Your task to perform on an android device: turn off priority inbox in the gmail app Image 0: 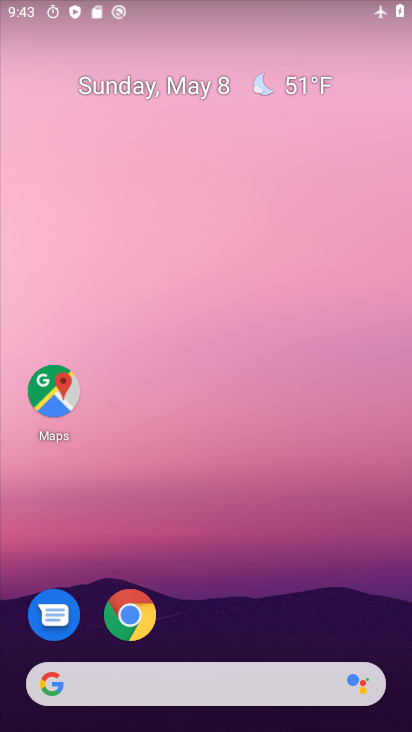
Step 0: drag from (234, 601) to (245, 185)
Your task to perform on an android device: turn off priority inbox in the gmail app Image 1: 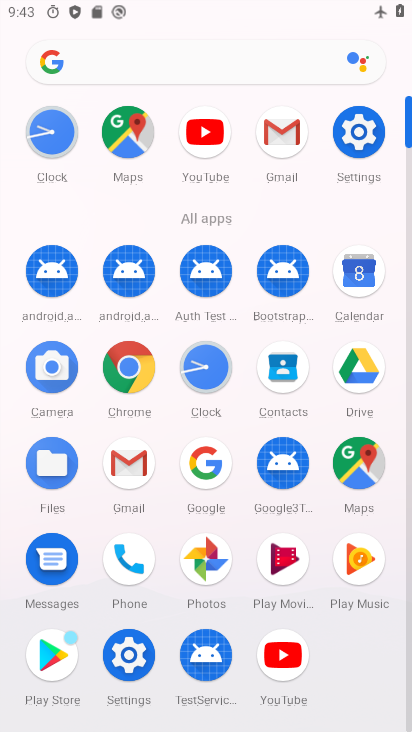
Step 1: click (147, 458)
Your task to perform on an android device: turn off priority inbox in the gmail app Image 2: 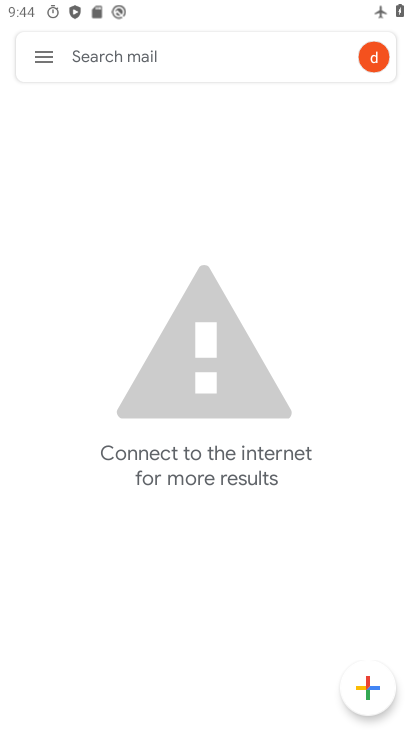
Step 2: click (31, 66)
Your task to perform on an android device: turn off priority inbox in the gmail app Image 3: 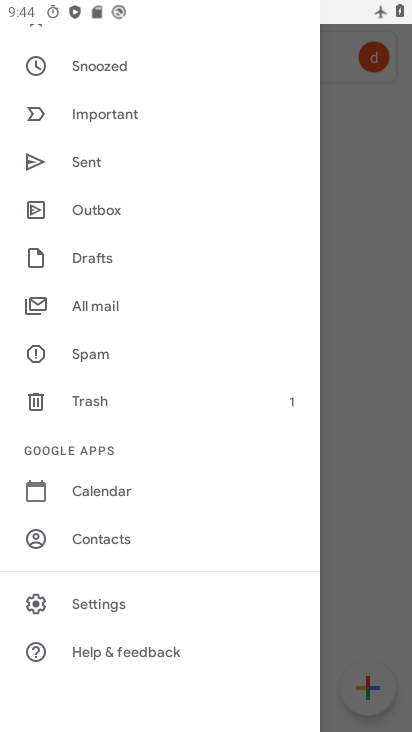
Step 3: click (116, 591)
Your task to perform on an android device: turn off priority inbox in the gmail app Image 4: 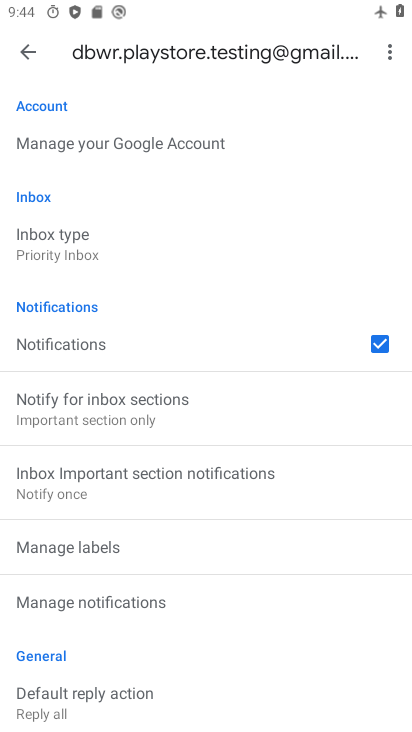
Step 4: click (131, 235)
Your task to perform on an android device: turn off priority inbox in the gmail app Image 5: 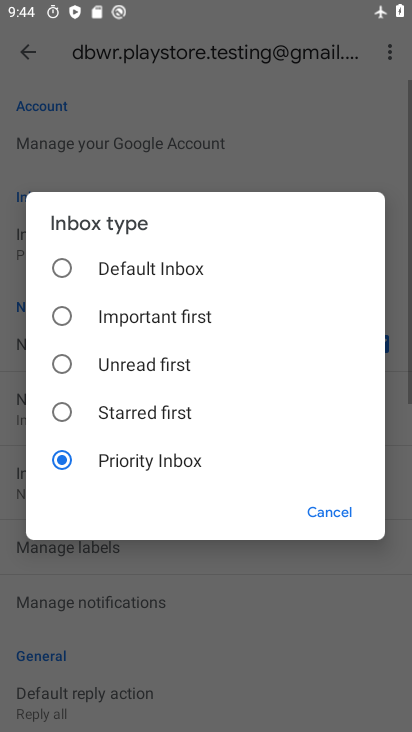
Step 5: click (116, 266)
Your task to perform on an android device: turn off priority inbox in the gmail app Image 6: 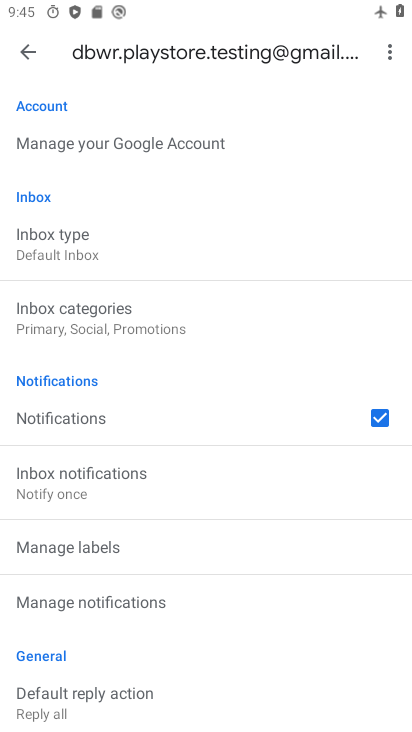
Step 6: task complete